Your task to perform on an android device: Go to network settings Image 0: 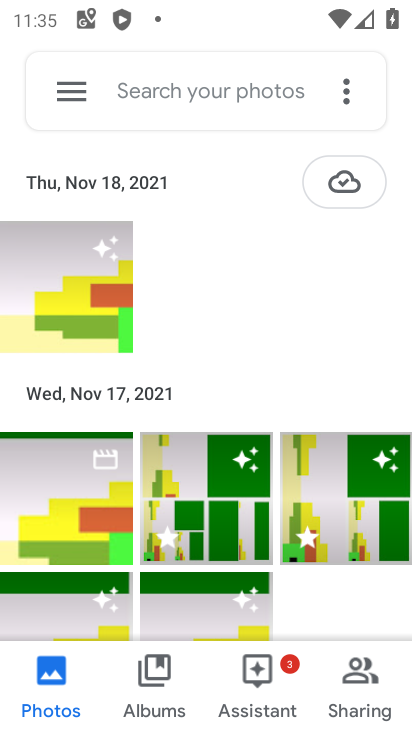
Step 0: press home button
Your task to perform on an android device: Go to network settings Image 1: 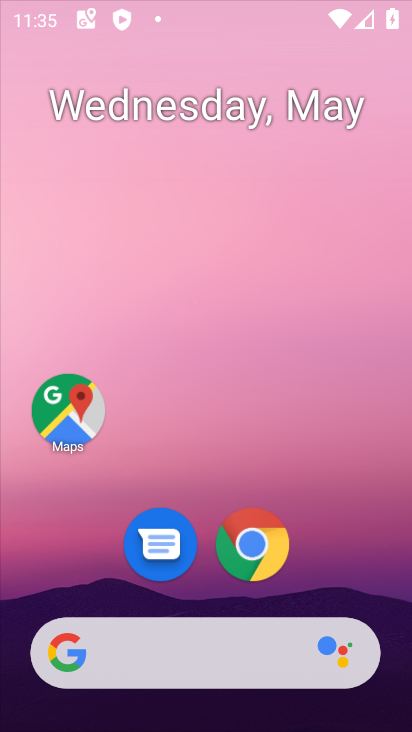
Step 1: drag from (325, 705) to (400, 8)
Your task to perform on an android device: Go to network settings Image 2: 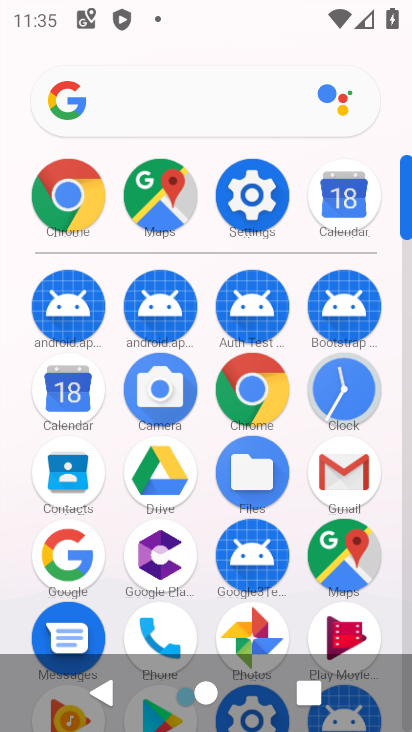
Step 2: click (258, 213)
Your task to perform on an android device: Go to network settings Image 3: 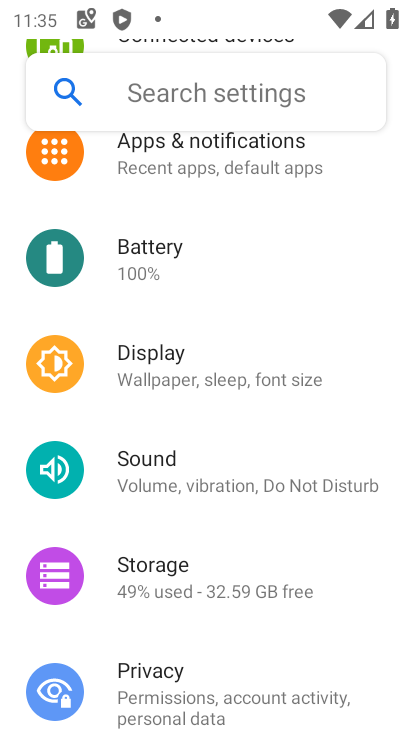
Step 3: drag from (224, 299) to (239, 634)
Your task to perform on an android device: Go to network settings Image 4: 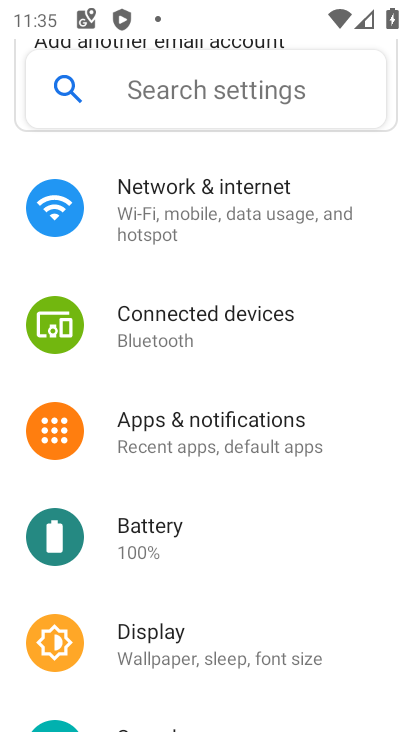
Step 4: click (255, 215)
Your task to perform on an android device: Go to network settings Image 5: 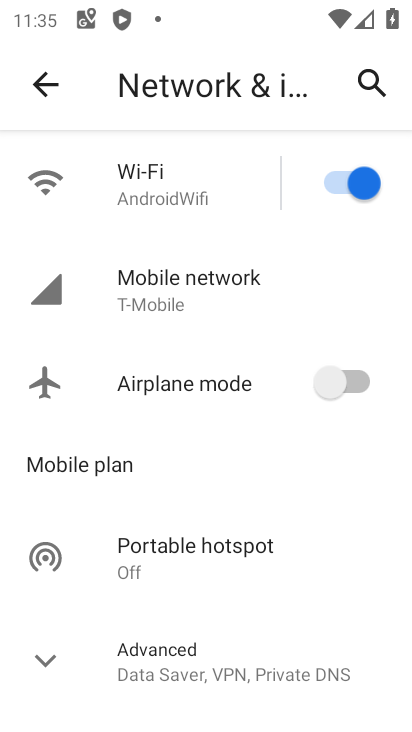
Step 5: task complete